Your task to perform on an android device: Search for sushi restaurants on Maps Image 0: 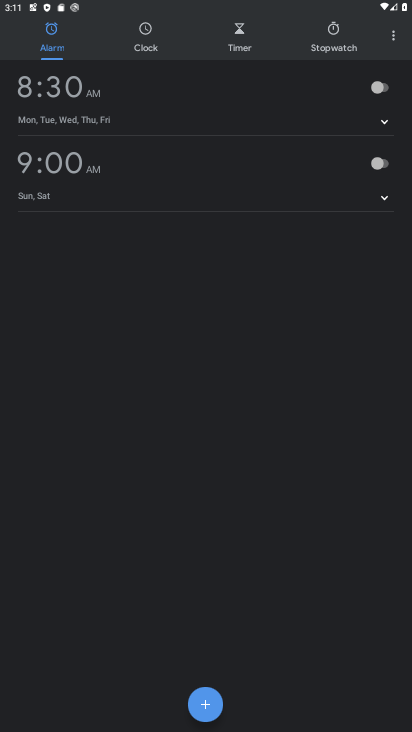
Step 0: press home button
Your task to perform on an android device: Search for sushi restaurants on Maps Image 1: 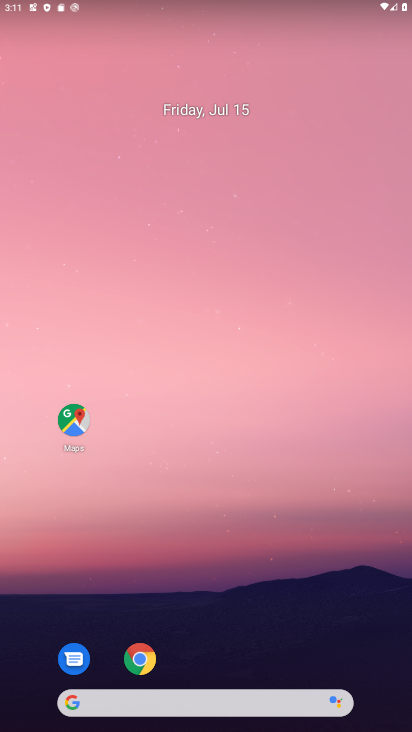
Step 1: drag from (165, 682) to (189, 180)
Your task to perform on an android device: Search for sushi restaurants on Maps Image 2: 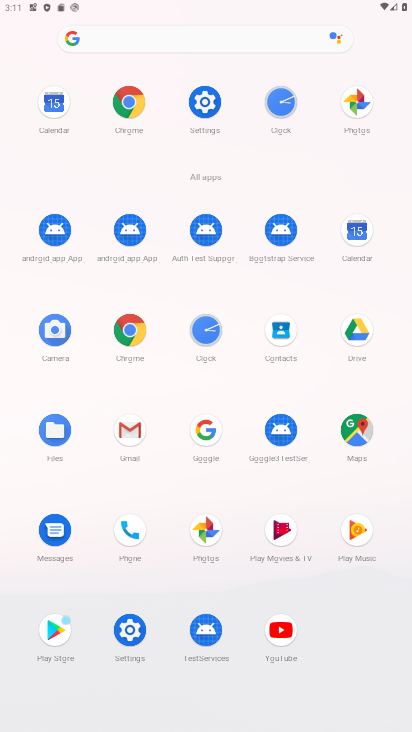
Step 2: click (360, 432)
Your task to perform on an android device: Search for sushi restaurants on Maps Image 3: 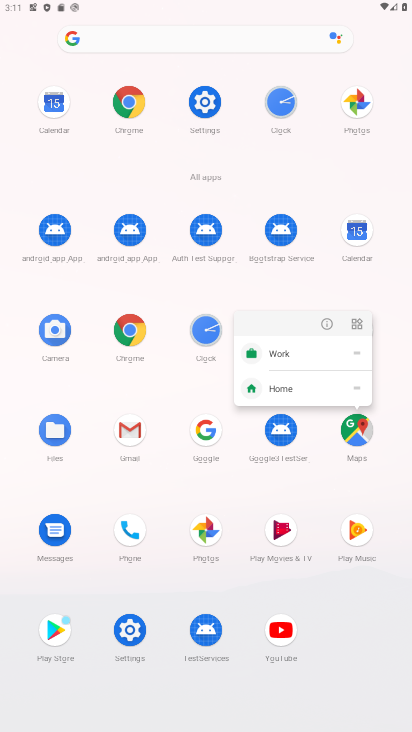
Step 3: click (357, 443)
Your task to perform on an android device: Search for sushi restaurants on Maps Image 4: 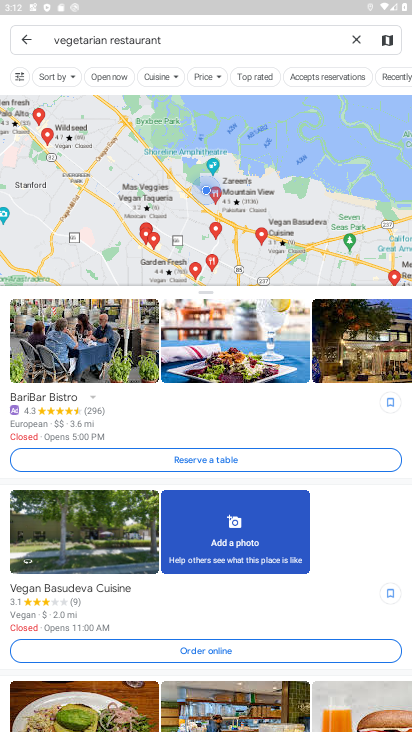
Step 4: click (120, 31)
Your task to perform on an android device: Search for sushi restaurants on Maps Image 5: 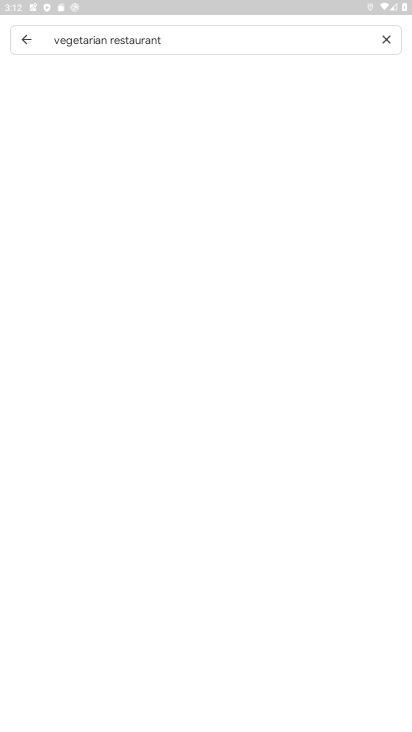
Step 5: click (121, 37)
Your task to perform on an android device: Search for sushi restaurants on Maps Image 6: 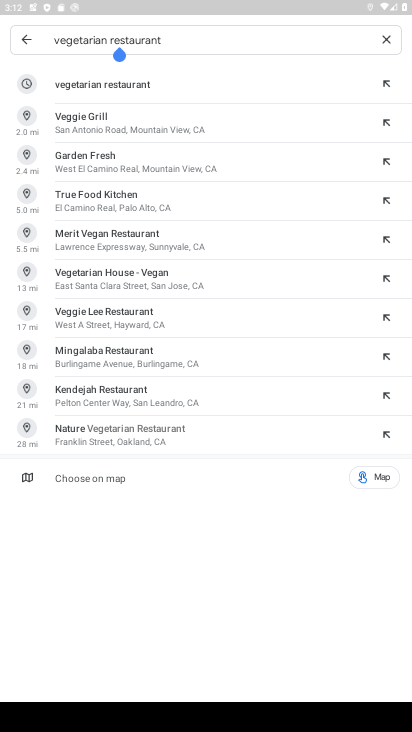
Step 6: click (382, 38)
Your task to perform on an android device: Search for sushi restaurants on Maps Image 7: 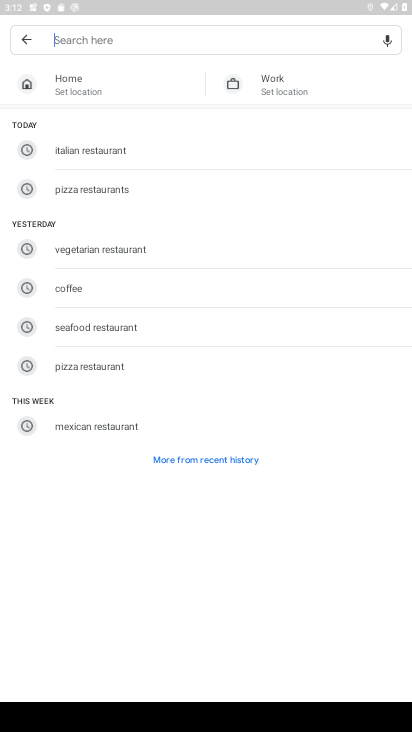
Step 7: click (209, 459)
Your task to perform on an android device: Search for sushi restaurants on Maps Image 8: 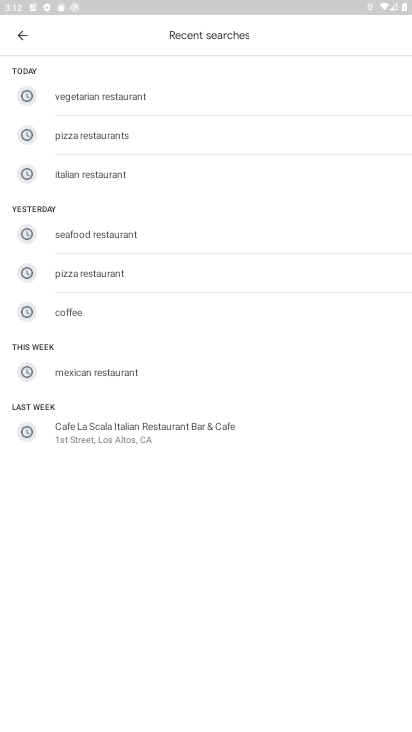
Step 8: click (21, 35)
Your task to perform on an android device: Search for sushi restaurants on Maps Image 9: 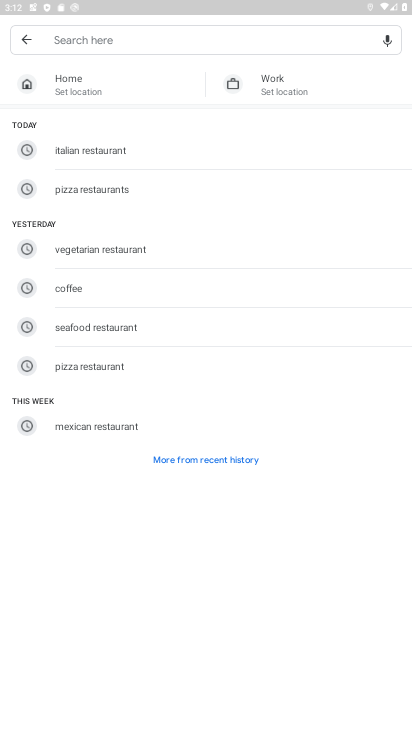
Step 9: type "sushi restaurants"
Your task to perform on an android device: Search for sushi restaurants on Maps Image 10: 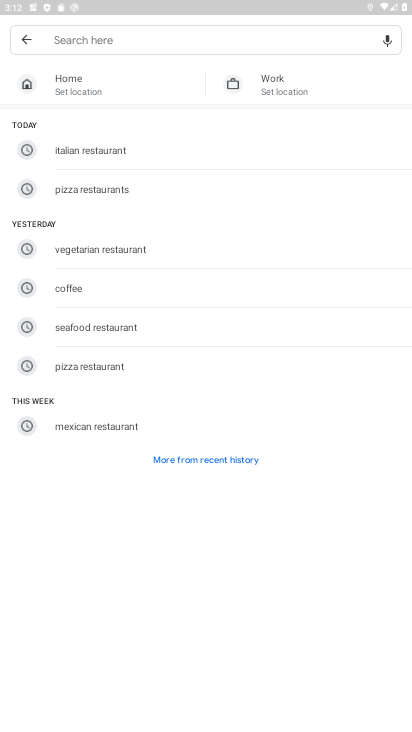
Step 10: click (66, 41)
Your task to perform on an android device: Search for sushi restaurants on Maps Image 11: 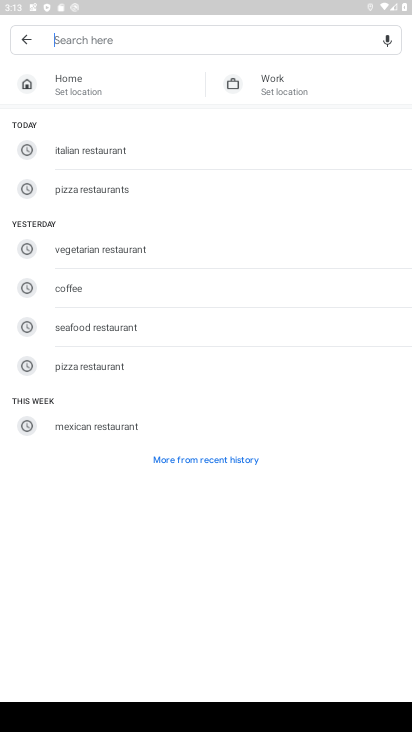
Step 11: type "sushi restaurants"
Your task to perform on an android device: Search for sushi restaurants on Maps Image 12: 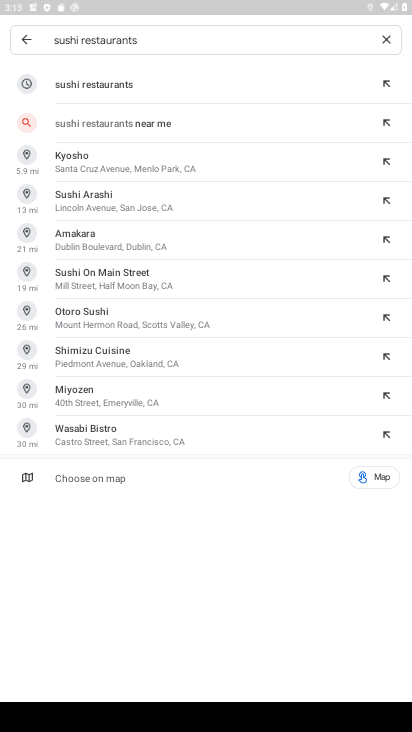
Step 12: click (87, 92)
Your task to perform on an android device: Search for sushi restaurants on Maps Image 13: 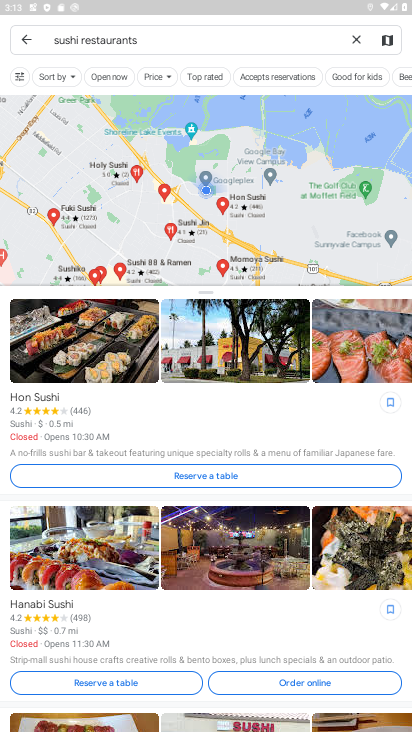
Step 13: task complete